Your task to perform on an android device: Show me popular games on the Play Store Image 0: 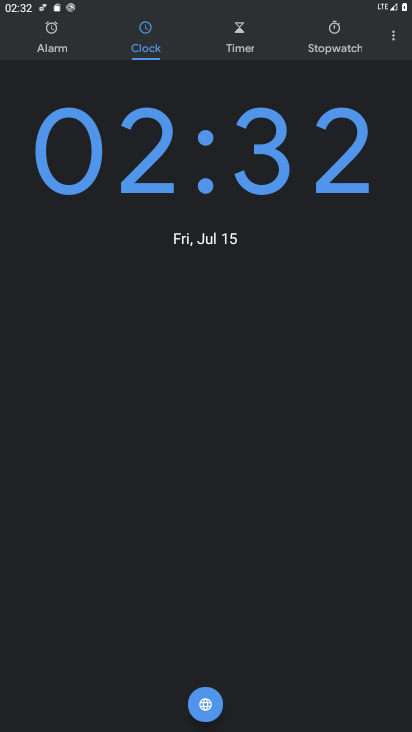
Step 0: press home button
Your task to perform on an android device: Show me popular games on the Play Store Image 1: 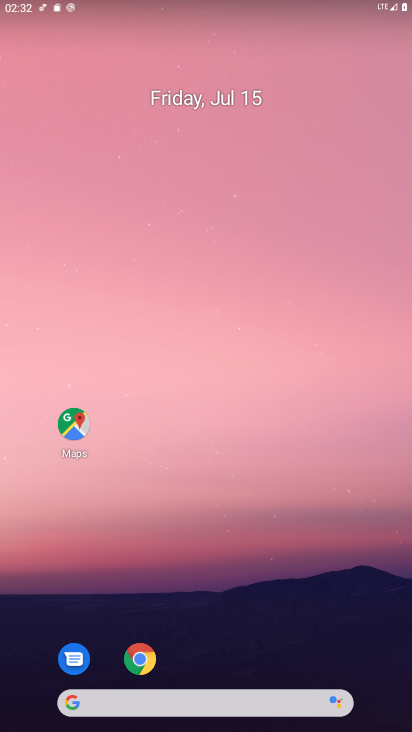
Step 1: drag from (173, 589) to (204, 233)
Your task to perform on an android device: Show me popular games on the Play Store Image 2: 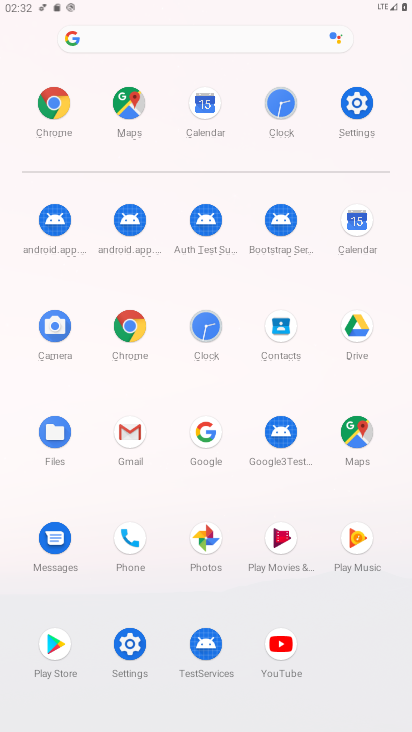
Step 2: click (64, 632)
Your task to perform on an android device: Show me popular games on the Play Store Image 3: 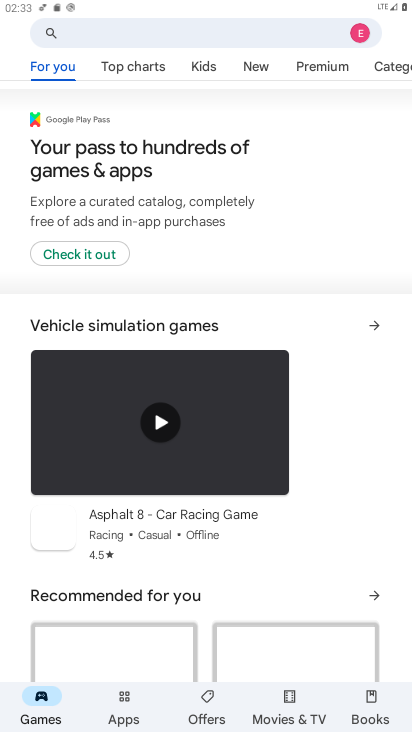
Step 3: drag from (130, 708) to (4, 488)
Your task to perform on an android device: Show me popular games on the Play Store Image 4: 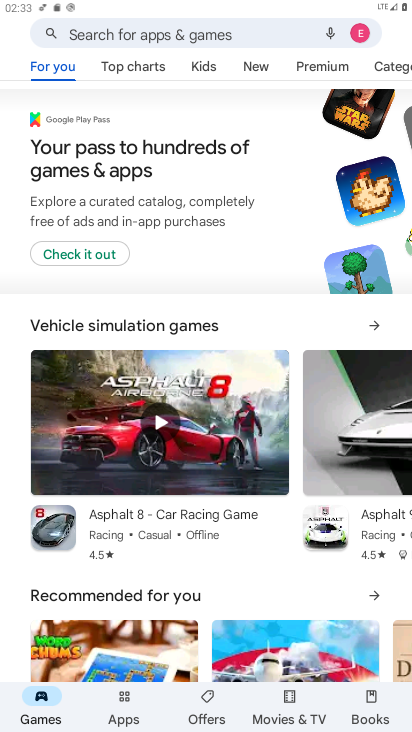
Step 4: click (39, 686)
Your task to perform on an android device: Show me popular games on the Play Store Image 5: 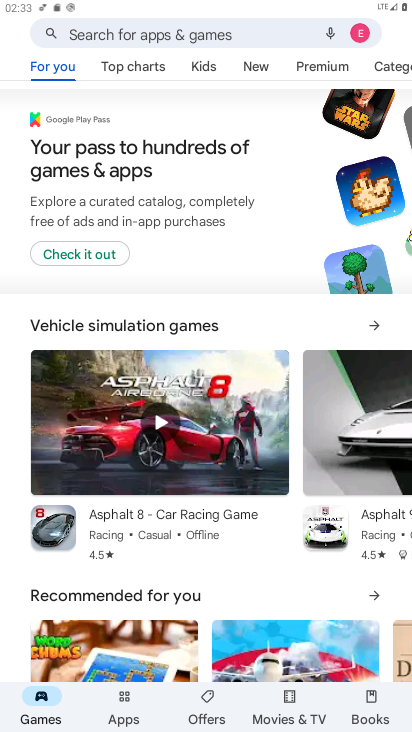
Step 5: task complete